Your task to perform on an android device: Open notification settings Image 0: 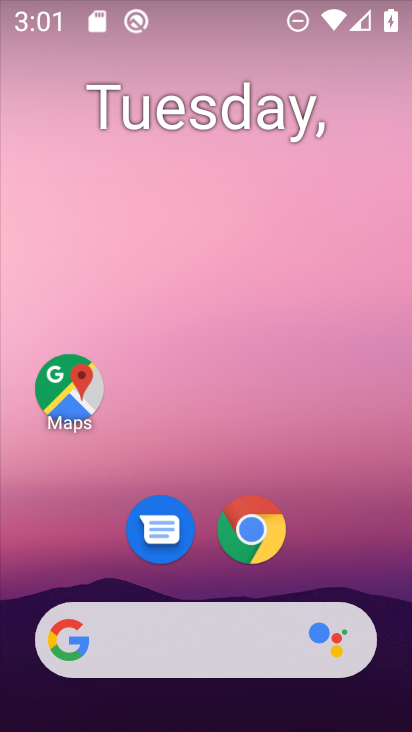
Step 0: drag from (249, 394) to (235, 218)
Your task to perform on an android device: Open notification settings Image 1: 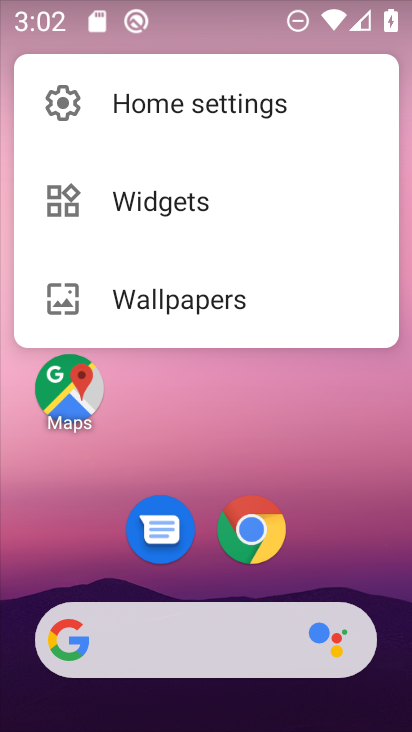
Step 1: click (330, 515)
Your task to perform on an android device: Open notification settings Image 2: 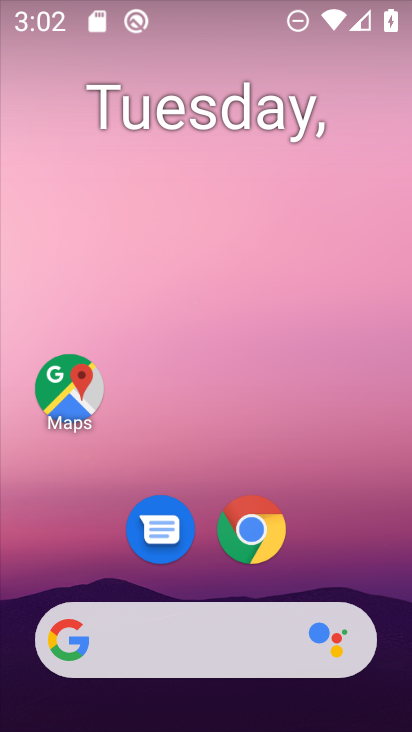
Step 2: drag from (298, 616) to (257, 273)
Your task to perform on an android device: Open notification settings Image 3: 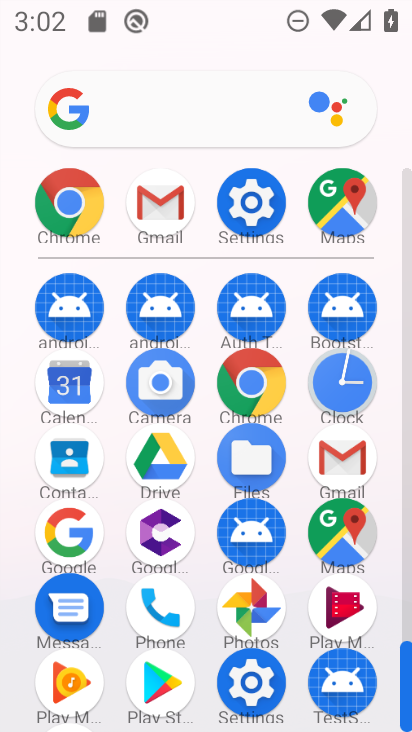
Step 3: click (241, 205)
Your task to perform on an android device: Open notification settings Image 4: 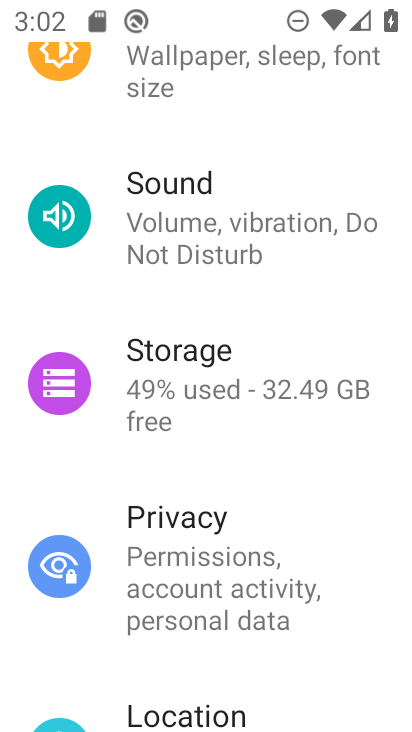
Step 4: drag from (251, 207) to (194, 691)
Your task to perform on an android device: Open notification settings Image 5: 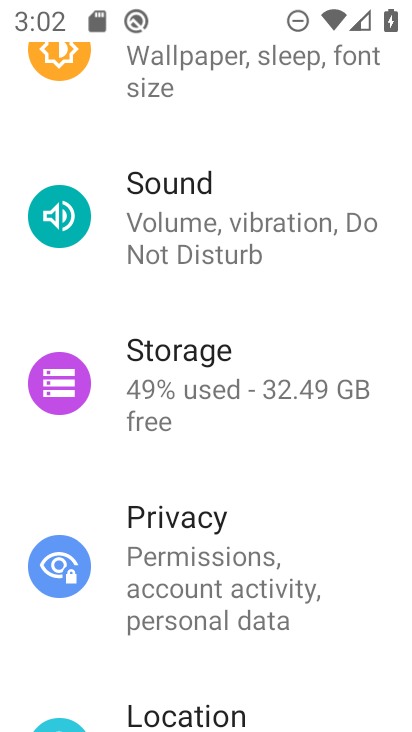
Step 5: drag from (248, 75) to (218, 639)
Your task to perform on an android device: Open notification settings Image 6: 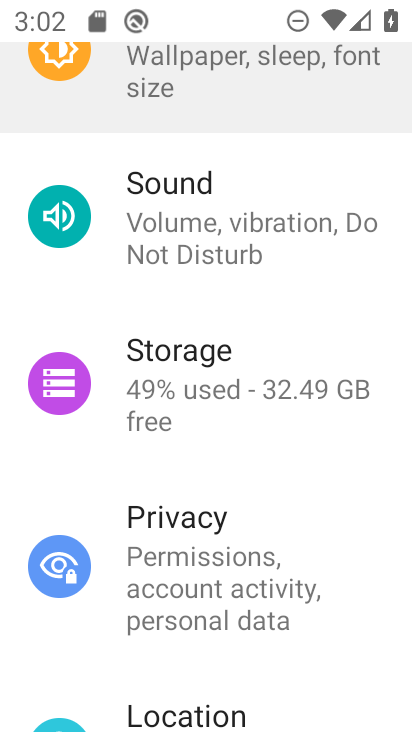
Step 6: drag from (229, 205) to (248, 501)
Your task to perform on an android device: Open notification settings Image 7: 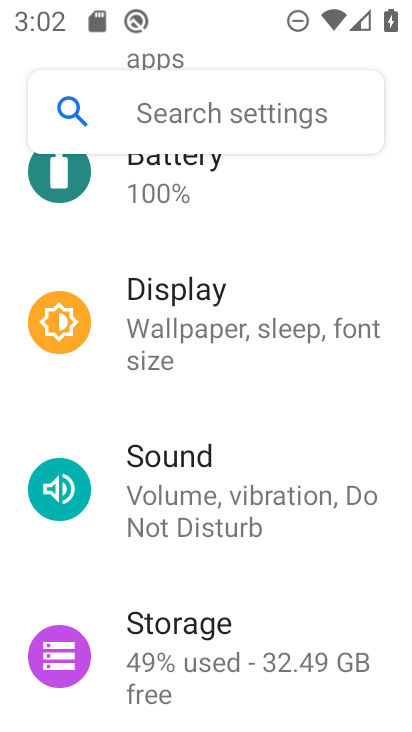
Step 7: drag from (236, 291) to (236, 538)
Your task to perform on an android device: Open notification settings Image 8: 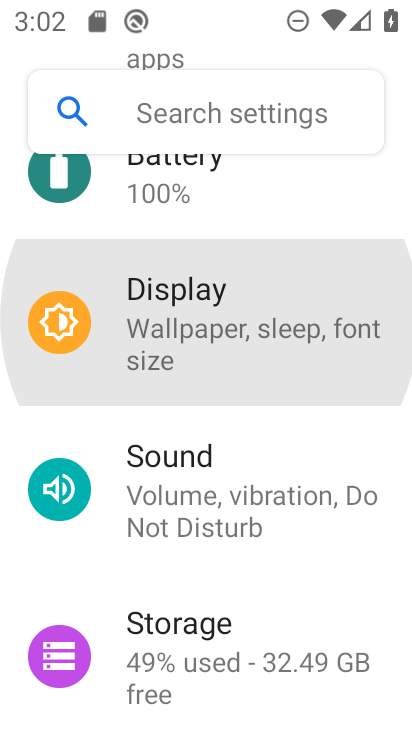
Step 8: drag from (204, 274) to (209, 580)
Your task to perform on an android device: Open notification settings Image 9: 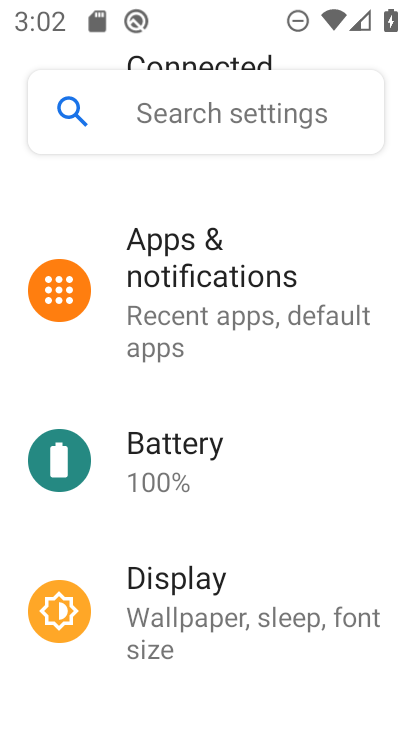
Step 9: drag from (190, 330) to (222, 657)
Your task to perform on an android device: Open notification settings Image 10: 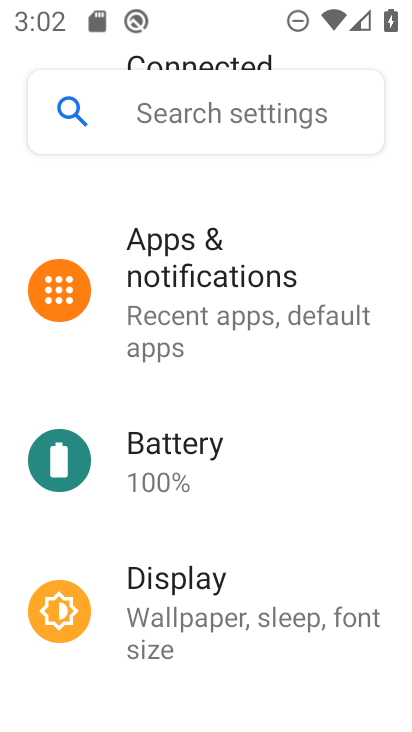
Step 10: drag from (214, 289) to (228, 657)
Your task to perform on an android device: Open notification settings Image 11: 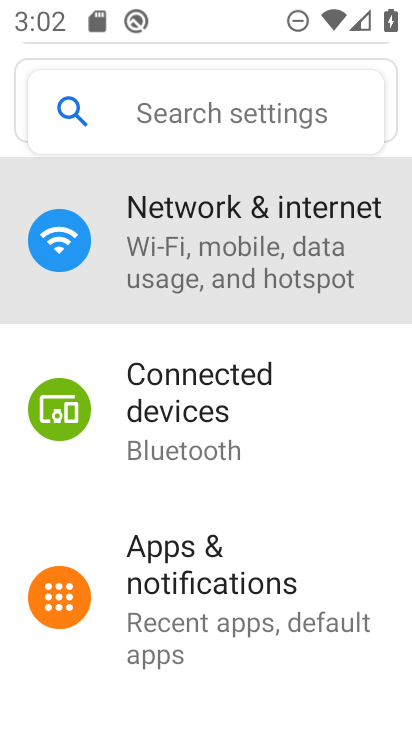
Step 11: drag from (202, 333) to (217, 492)
Your task to perform on an android device: Open notification settings Image 12: 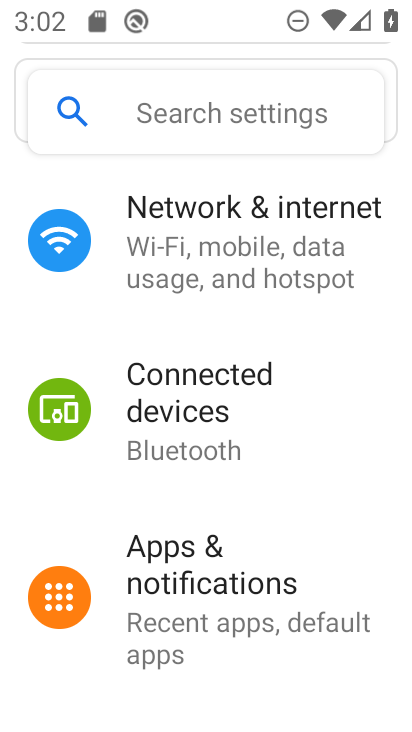
Step 12: click (163, 576)
Your task to perform on an android device: Open notification settings Image 13: 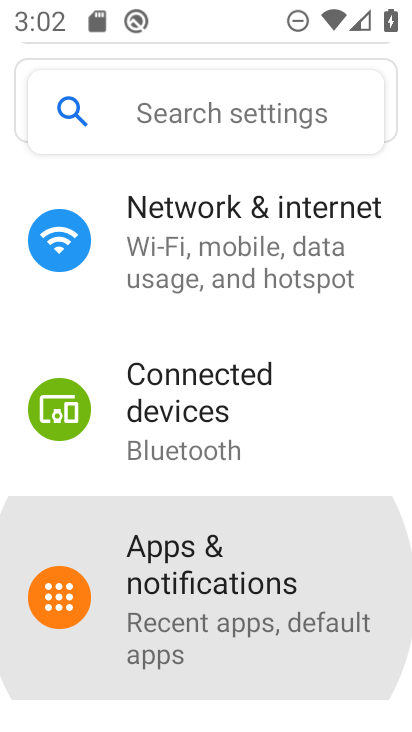
Step 13: click (162, 577)
Your task to perform on an android device: Open notification settings Image 14: 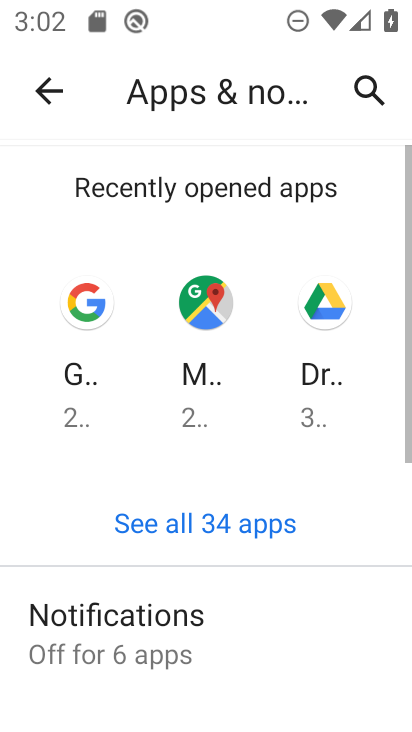
Step 14: click (161, 577)
Your task to perform on an android device: Open notification settings Image 15: 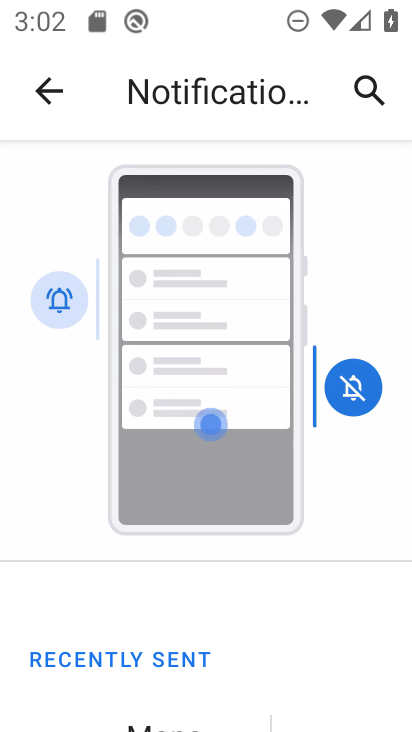
Step 15: task complete